Your task to perform on an android device: Open privacy settings Image 0: 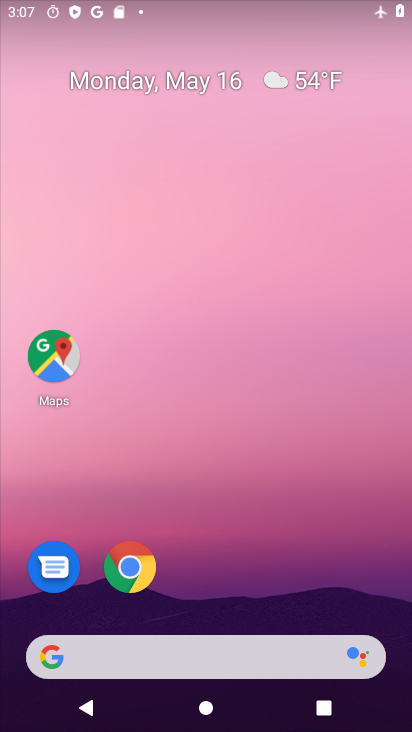
Step 0: drag from (245, 571) to (263, 59)
Your task to perform on an android device: Open privacy settings Image 1: 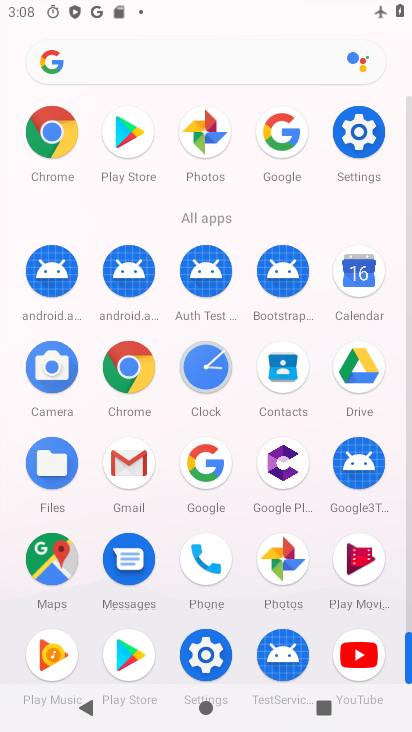
Step 1: click (208, 654)
Your task to perform on an android device: Open privacy settings Image 2: 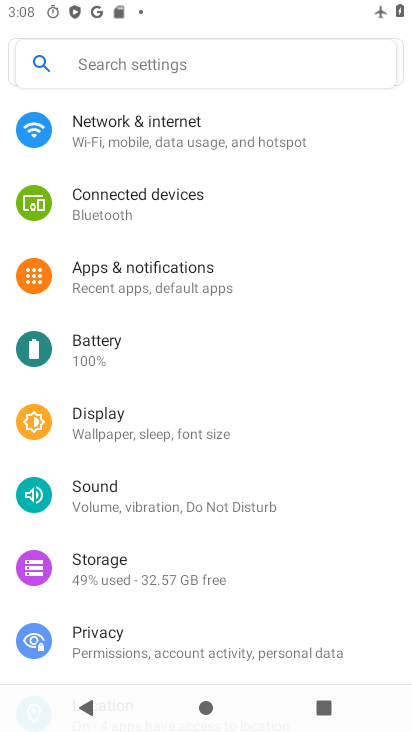
Step 2: drag from (167, 548) to (244, 332)
Your task to perform on an android device: Open privacy settings Image 3: 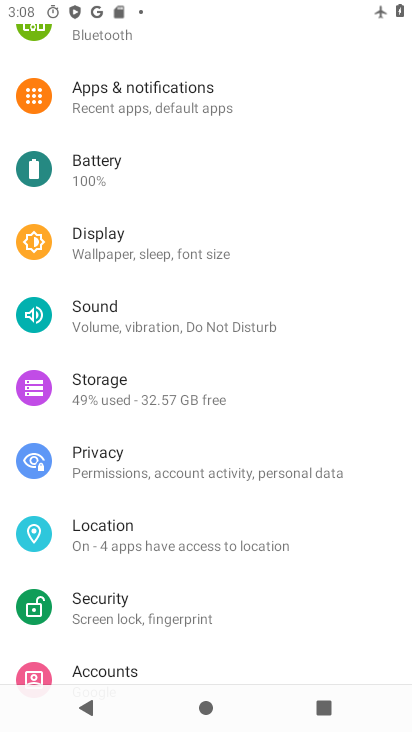
Step 3: click (93, 458)
Your task to perform on an android device: Open privacy settings Image 4: 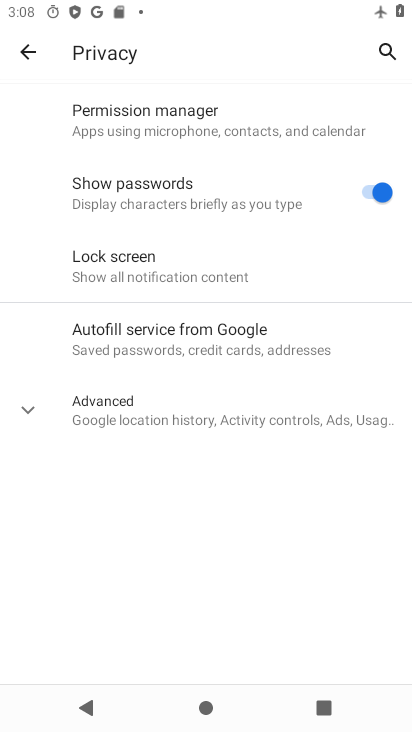
Step 4: task complete